Your task to perform on an android device: Open Google Chrome and click the shortcut for Amazon.com Image 0: 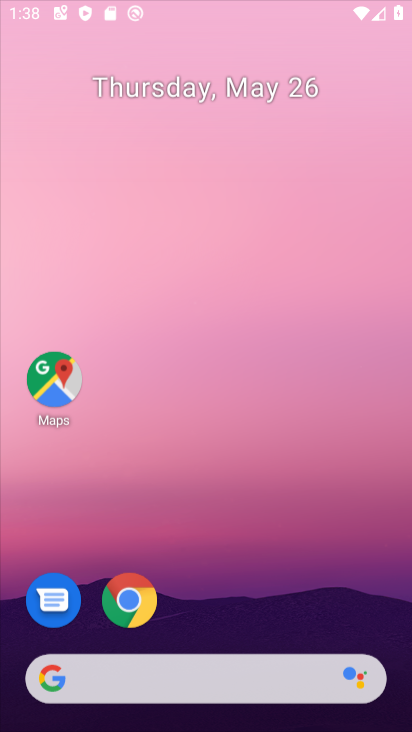
Step 0: click (304, 163)
Your task to perform on an android device: Open Google Chrome and click the shortcut for Amazon.com Image 1: 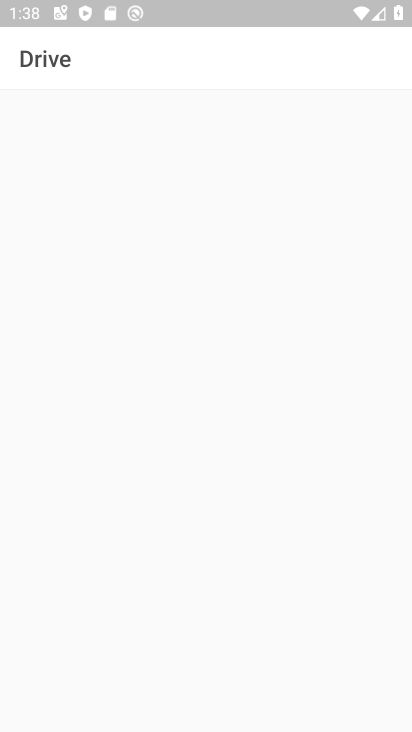
Step 1: press home button
Your task to perform on an android device: Open Google Chrome and click the shortcut for Amazon.com Image 2: 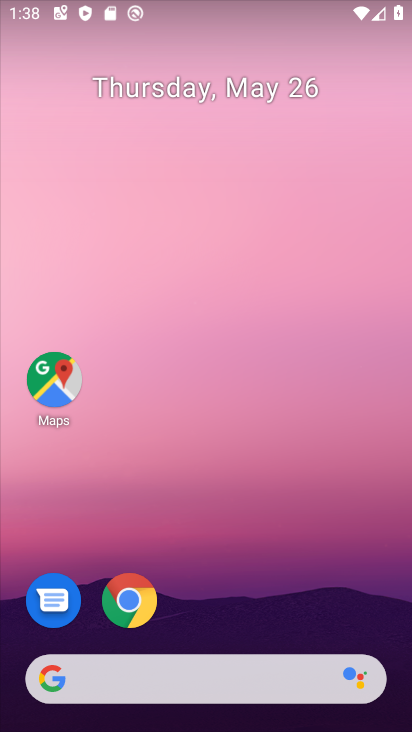
Step 2: click (144, 587)
Your task to perform on an android device: Open Google Chrome and click the shortcut for Amazon.com Image 3: 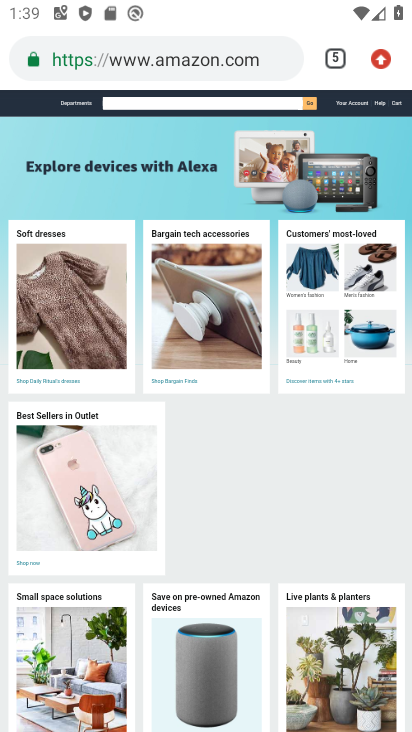
Step 3: task complete